Your task to perform on an android device: turn off location history Image 0: 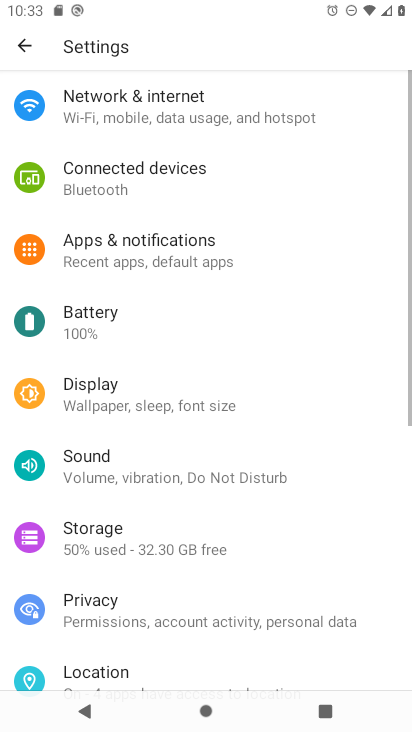
Step 0: press home button
Your task to perform on an android device: turn off location history Image 1: 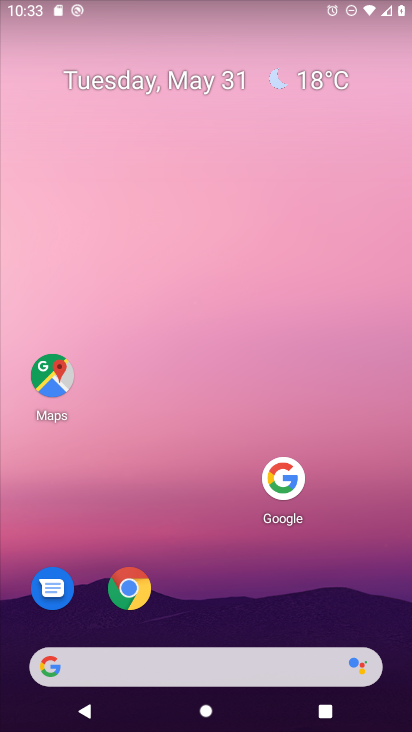
Step 1: drag from (155, 659) to (275, 112)
Your task to perform on an android device: turn off location history Image 2: 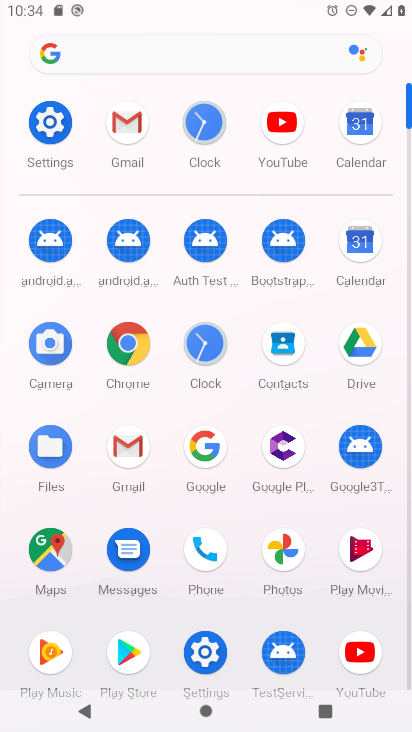
Step 2: click (50, 109)
Your task to perform on an android device: turn off location history Image 3: 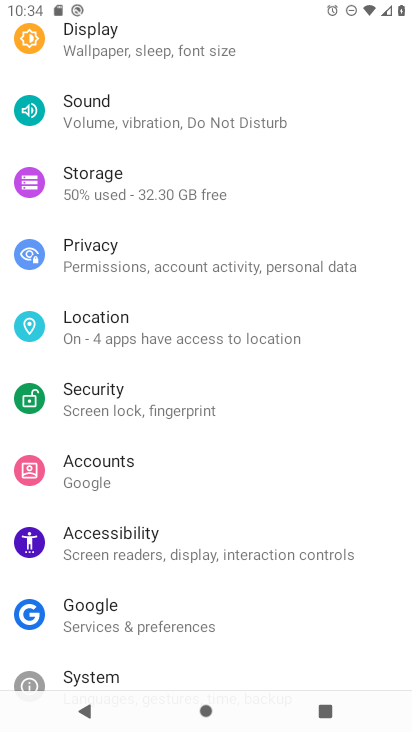
Step 3: click (141, 325)
Your task to perform on an android device: turn off location history Image 4: 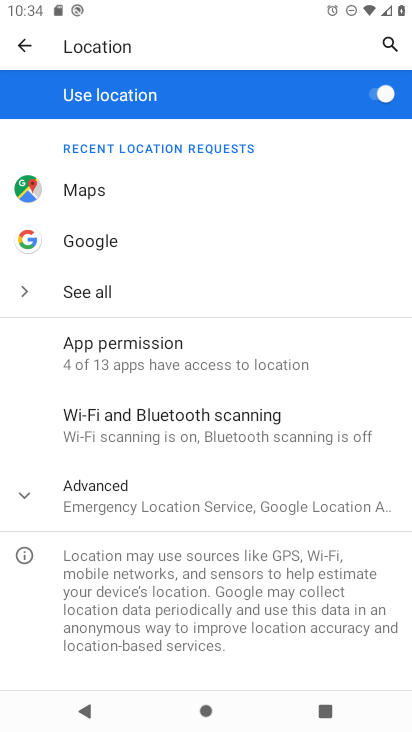
Step 4: click (379, 96)
Your task to perform on an android device: turn off location history Image 5: 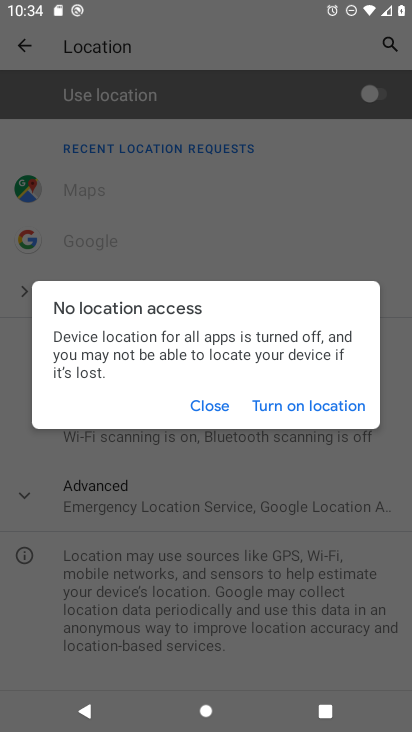
Step 5: task complete